Your task to perform on an android device: turn off airplane mode Image 0: 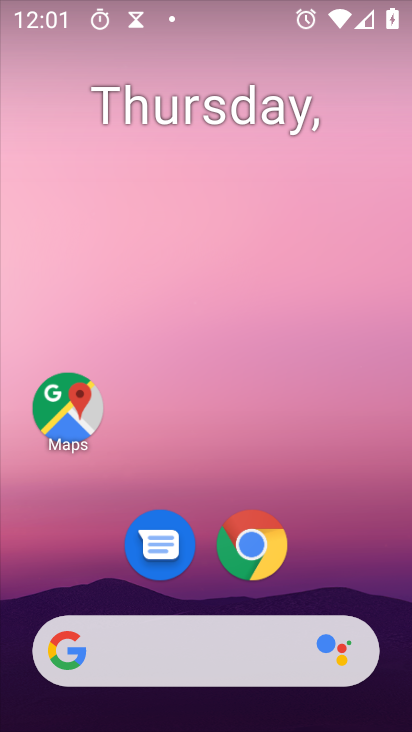
Step 0: press home button
Your task to perform on an android device: turn off airplane mode Image 1: 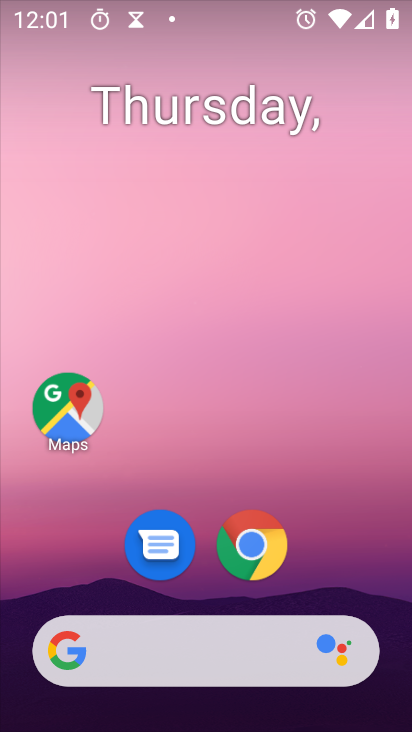
Step 1: drag from (174, 677) to (331, 68)
Your task to perform on an android device: turn off airplane mode Image 2: 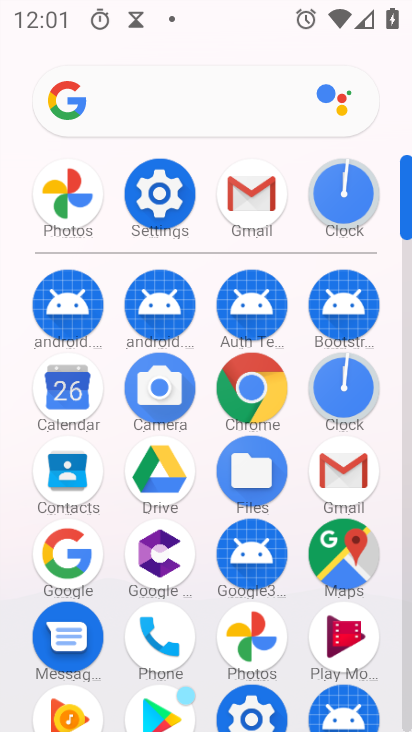
Step 2: click (170, 212)
Your task to perform on an android device: turn off airplane mode Image 3: 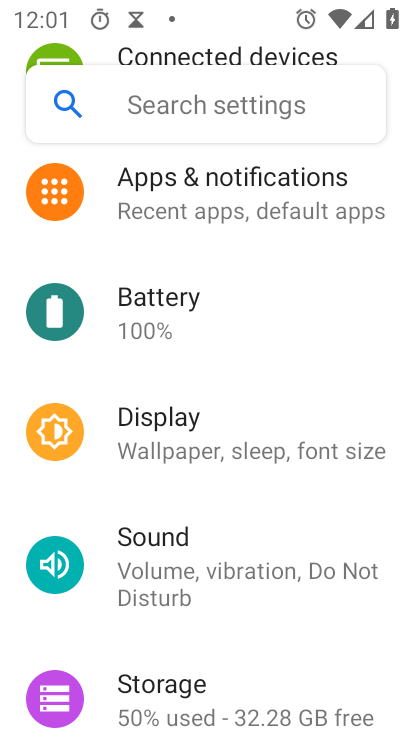
Step 3: drag from (282, 243) to (270, 566)
Your task to perform on an android device: turn off airplane mode Image 4: 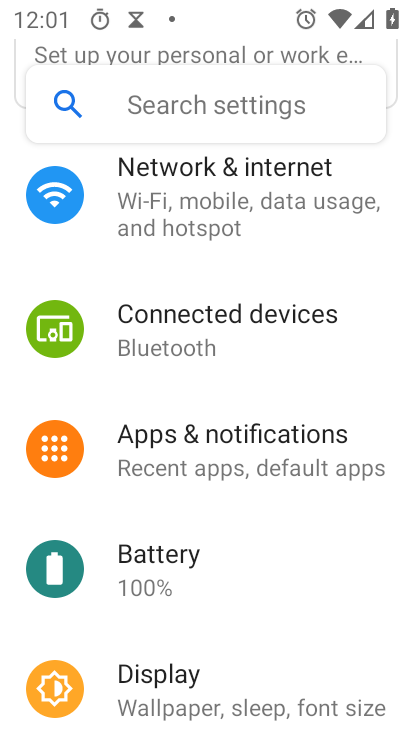
Step 4: drag from (313, 245) to (259, 535)
Your task to perform on an android device: turn off airplane mode Image 5: 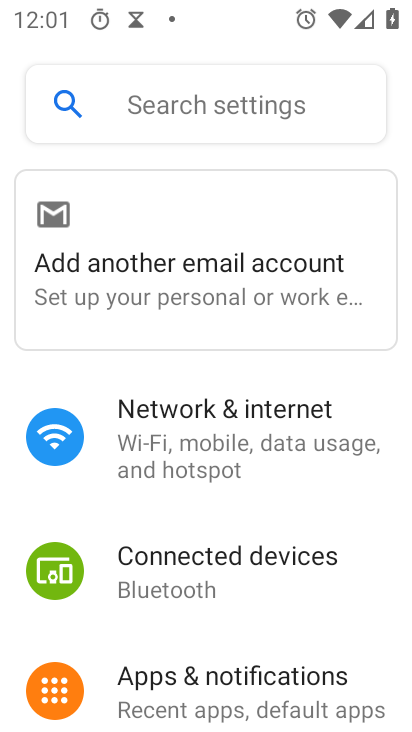
Step 5: click (192, 434)
Your task to perform on an android device: turn off airplane mode Image 6: 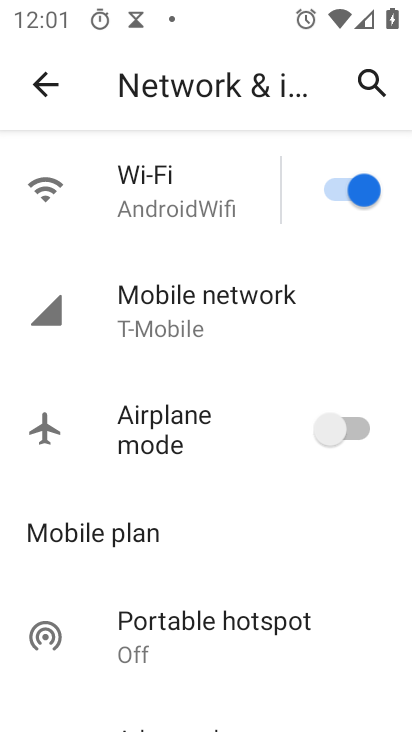
Step 6: task complete